Your task to perform on an android device: Go to battery settings Image 0: 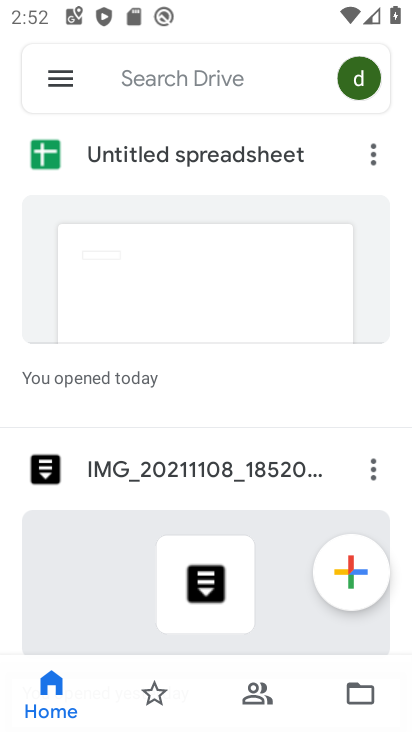
Step 0: press home button
Your task to perform on an android device: Go to battery settings Image 1: 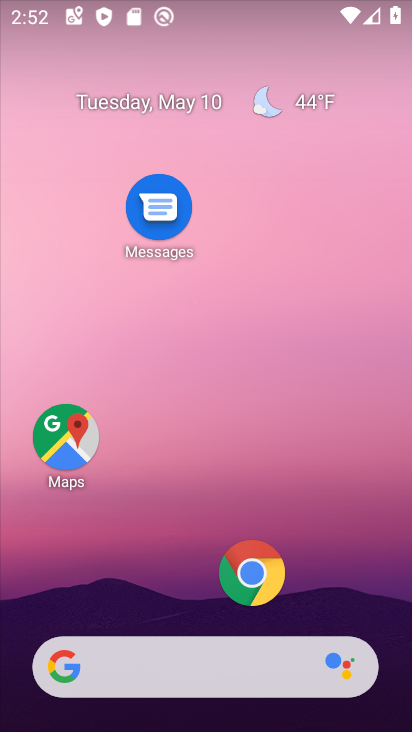
Step 1: drag from (182, 602) to (249, 268)
Your task to perform on an android device: Go to battery settings Image 2: 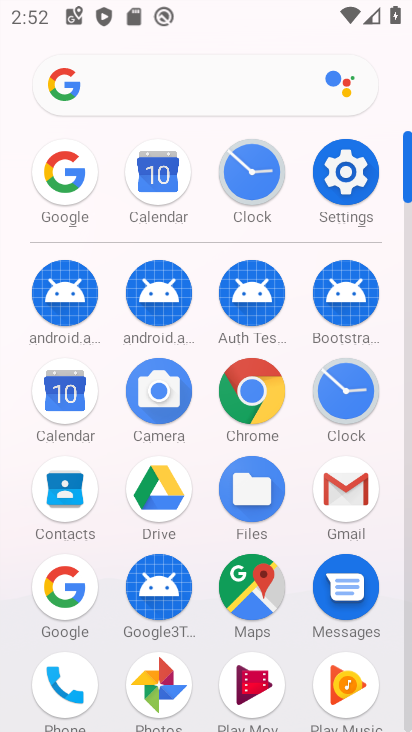
Step 2: click (328, 176)
Your task to perform on an android device: Go to battery settings Image 3: 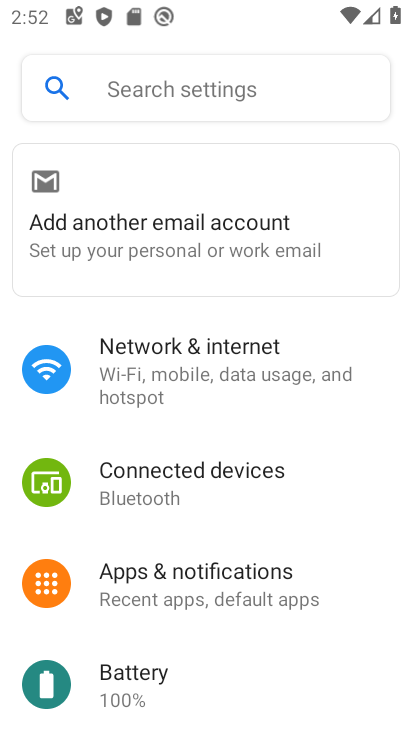
Step 3: click (185, 670)
Your task to perform on an android device: Go to battery settings Image 4: 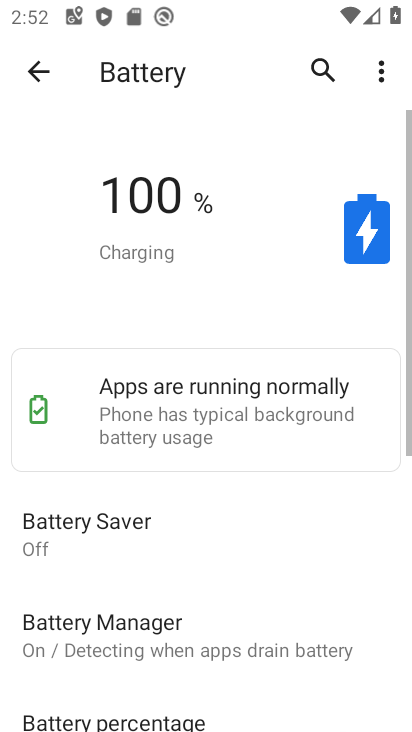
Step 4: task complete